Your task to perform on an android device: Show me popular games on the Play Store Image 0: 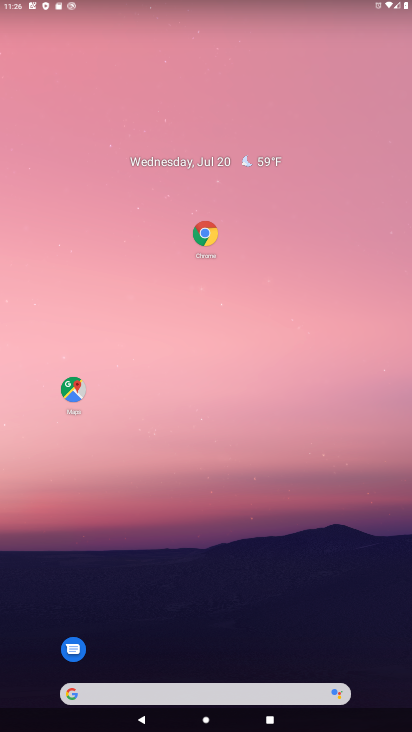
Step 0: drag from (239, 632) to (247, 106)
Your task to perform on an android device: Show me popular games on the Play Store Image 1: 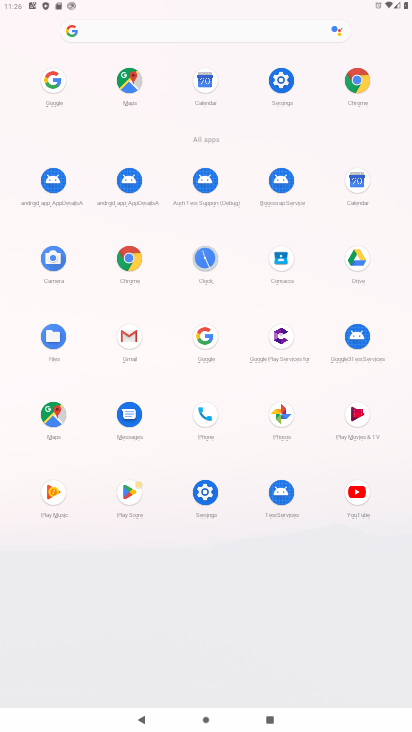
Step 1: click (132, 490)
Your task to perform on an android device: Show me popular games on the Play Store Image 2: 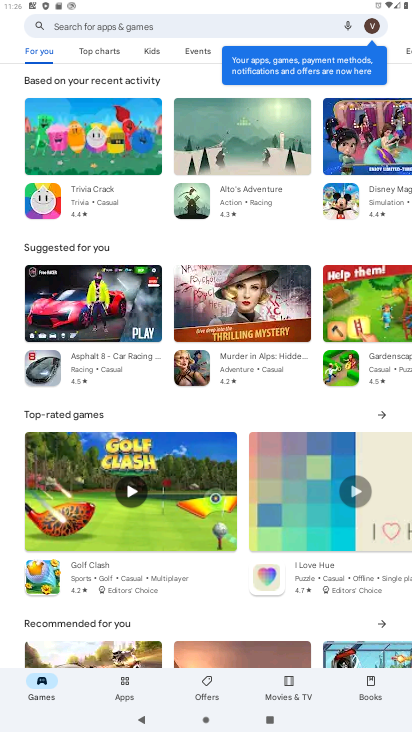
Step 2: click (167, 28)
Your task to perform on an android device: Show me popular games on the Play Store Image 3: 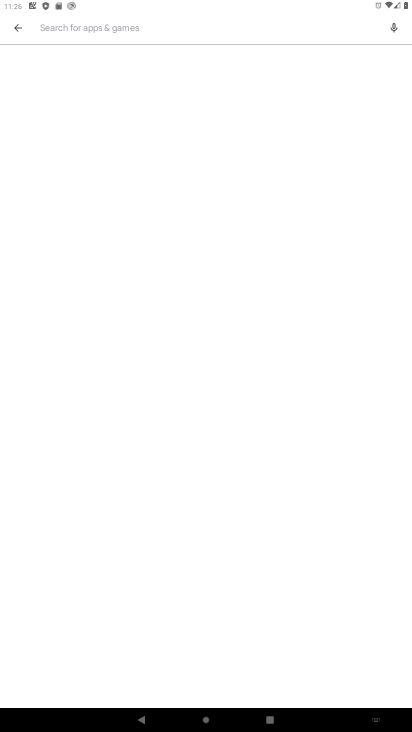
Step 3: task complete